Your task to perform on an android device: open app "DuckDuckGo Privacy Browser" (install if not already installed) and enter user name: "cleaving@outlook.com" and password: "freighters" Image 0: 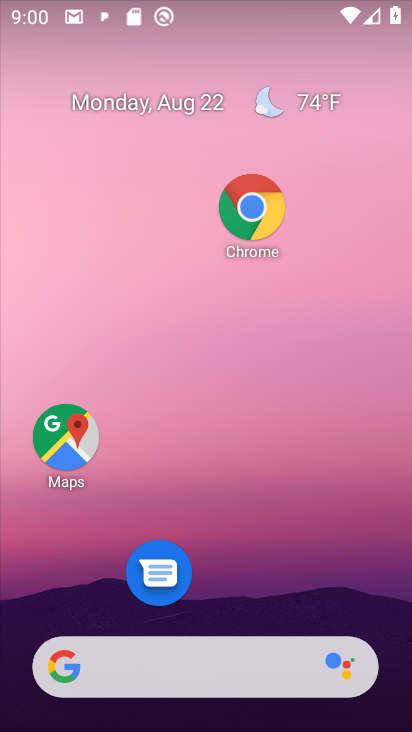
Step 0: drag from (222, 583) to (251, 24)
Your task to perform on an android device: open app "DuckDuckGo Privacy Browser" (install if not already installed) and enter user name: "cleaving@outlook.com" and password: "freighters" Image 1: 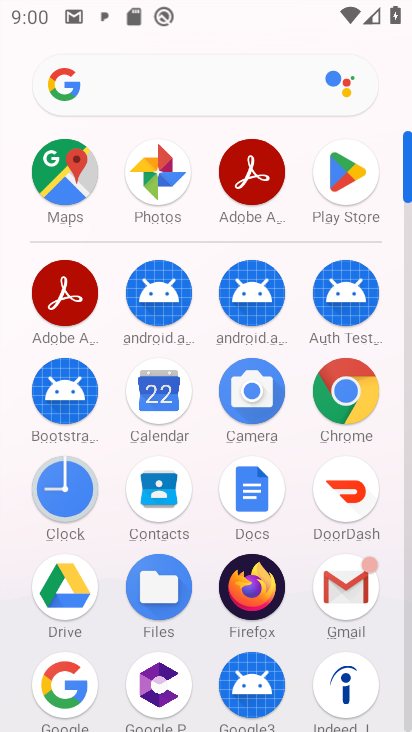
Step 1: click (342, 190)
Your task to perform on an android device: open app "DuckDuckGo Privacy Browser" (install if not already installed) and enter user name: "cleaving@outlook.com" and password: "freighters" Image 2: 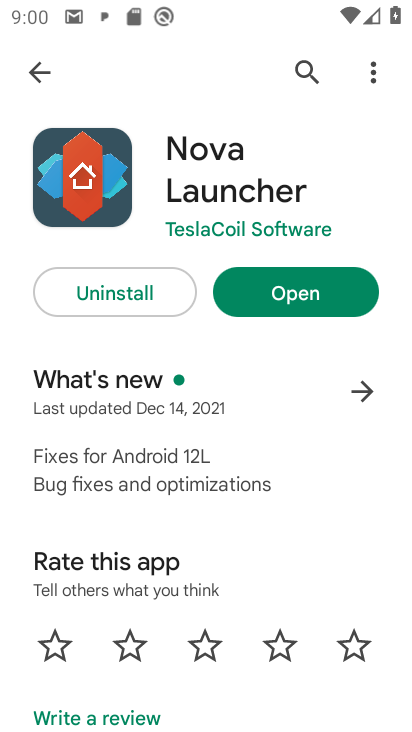
Step 2: click (31, 57)
Your task to perform on an android device: open app "DuckDuckGo Privacy Browser" (install if not already installed) and enter user name: "cleaving@outlook.com" and password: "freighters" Image 3: 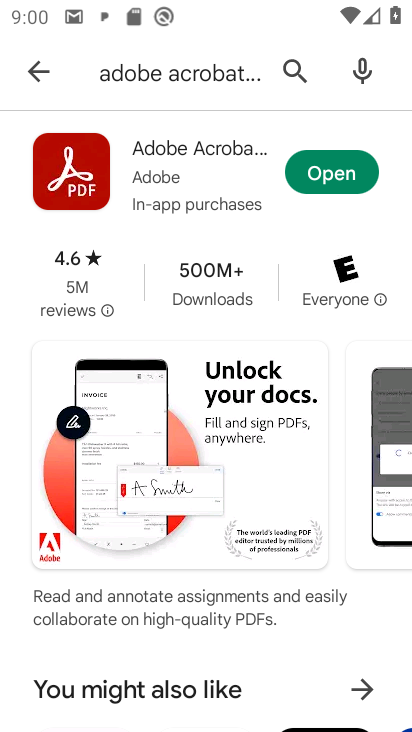
Step 3: click (177, 75)
Your task to perform on an android device: open app "DuckDuckGo Privacy Browser" (install if not already installed) and enter user name: "cleaving@outlook.com" and password: "freighters" Image 4: 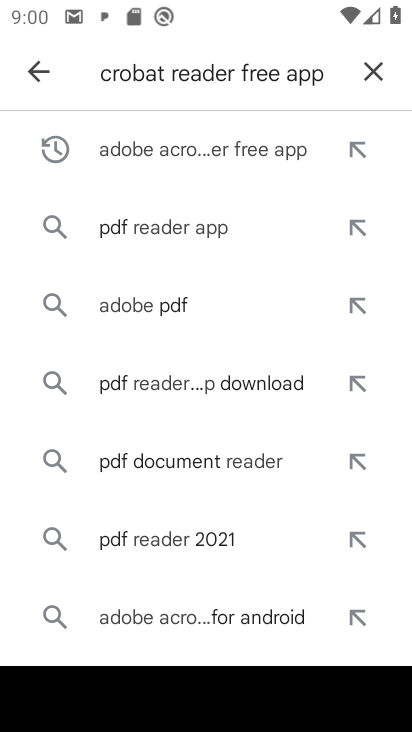
Step 4: click (365, 64)
Your task to perform on an android device: open app "DuckDuckGo Privacy Browser" (install if not already installed) and enter user name: "cleaving@outlook.com" and password: "freighters" Image 5: 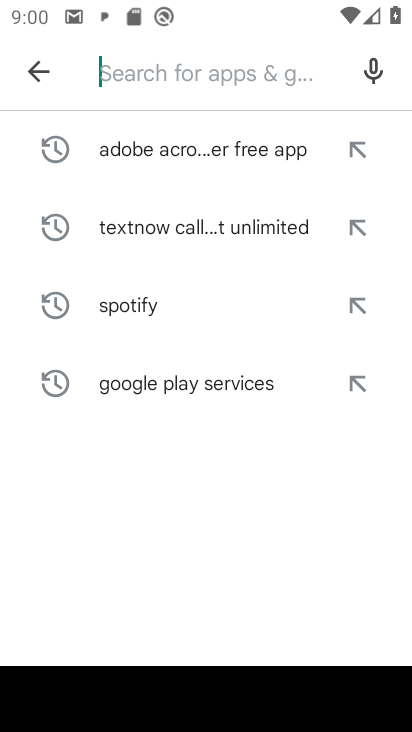
Step 5: type "Duck duck go"
Your task to perform on an android device: open app "DuckDuckGo Privacy Browser" (install if not already installed) and enter user name: "cleaving@outlook.com" and password: "freighters" Image 6: 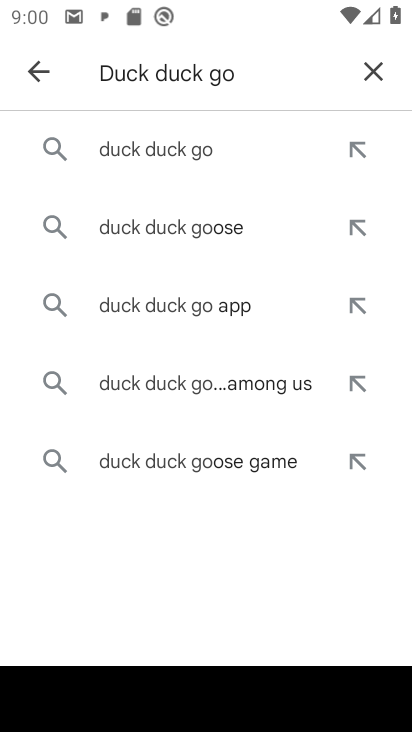
Step 6: click (179, 157)
Your task to perform on an android device: open app "DuckDuckGo Privacy Browser" (install if not already installed) and enter user name: "cleaving@outlook.com" and password: "freighters" Image 7: 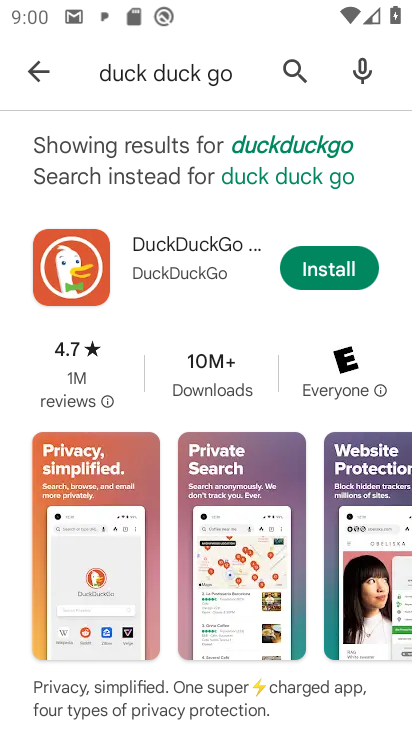
Step 7: click (352, 276)
Your task to perform on an android device: open app "DuckDuckGo Privacy Browser" (install if not already installed) and enter user name: "cleaving@outlook.com" and password: "freighters" Image 8: 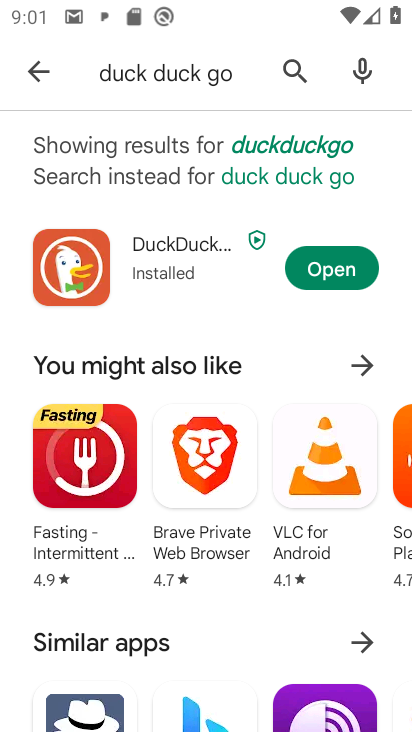
Step 8: click (327, 280)
Your task to perform on an android device: open app "DuckDuckGo Privacy Browser" (install if not already installed) and enter user name: "cleaving@outlook.com" and password: "freighters" Image 9: 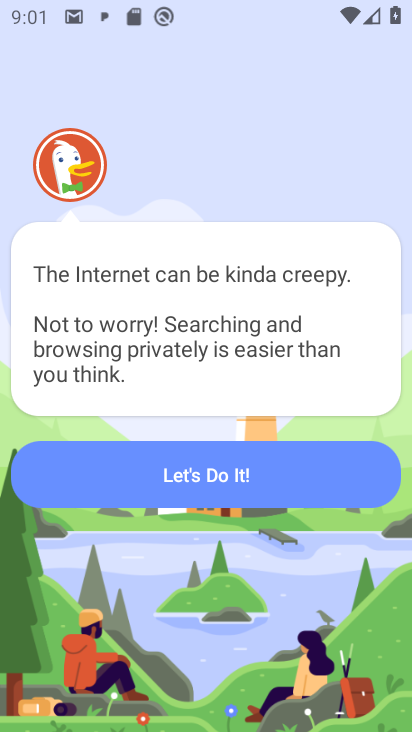
Step 9: click (209, 480)
Your task to perform on an android device: open app "DuckDuckGo Privacy Browser" (install if not already installed) and enter user name: "cleaving@outlook.com" and password: "freighters" Image 10: 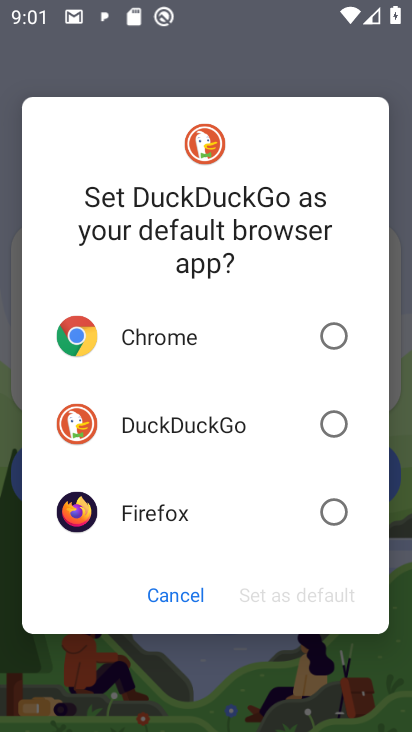
Step 10: click (232, 431)
Your task to perform on an android device: open app "DuckDuckGo Privacy Browser" (install if not already installed) and enter user name: "cleaving@outlook.com" and password: "freighters" Image 11: 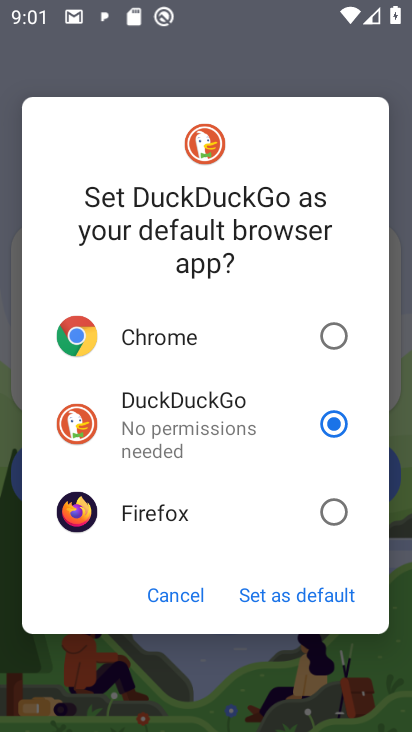
Step 11: click (283, 595)
Your task to perform on an android device: open app "DuckDuckGo Privacy Browser" (install if not already installed) and enter user name: "cleaving@outlook.com" and password: "freighters" Image 12: 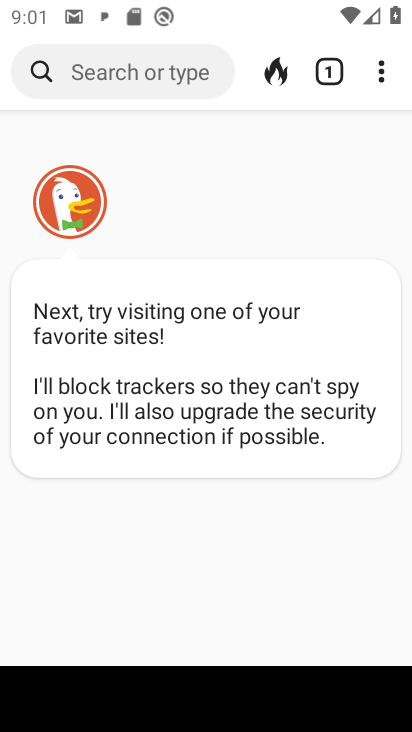
Step 12: click (377, 73)
Your task to perform on an android device: open app "DuckDuckGo Privacy Browser" (install if not already installed) and enter user name: "cleaving@outlook.com" and password: "freighters" Image 13: 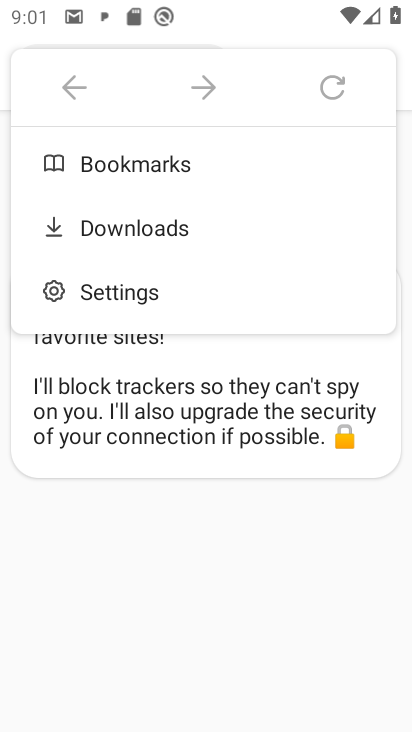
Step 13: click (116, 299)
Your task to perform on an android device: open app "DuckDuckGo Privacy Browser" (install if not already installed) and enter user name: "cleaving@outlook.com" and password: "freighters" Image 14: 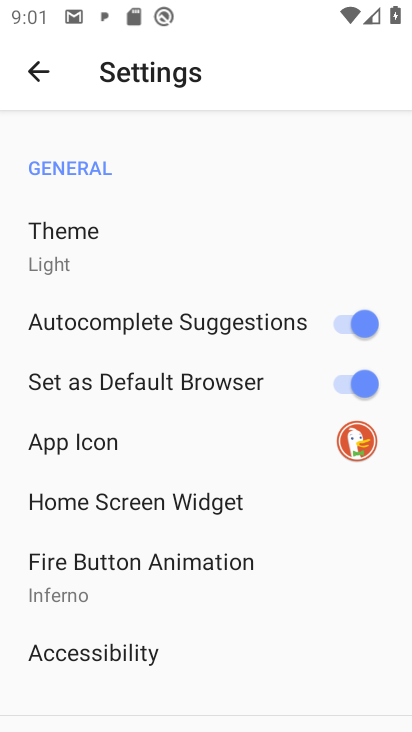
Step 14: task complete